Your task to perform on an android device: Go to internet settings Image 0: 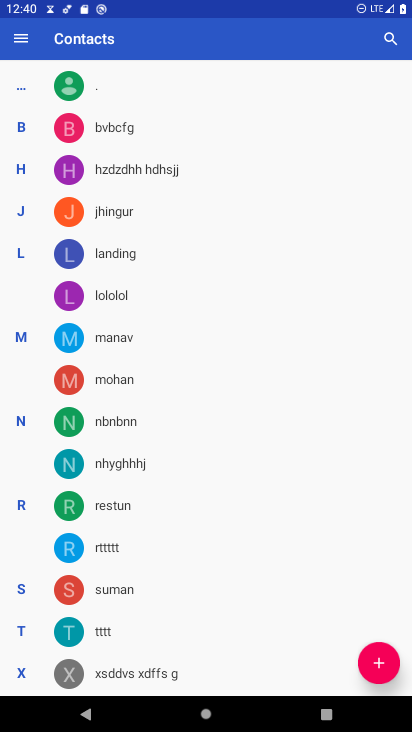
Step 0: press home button
Your task to perform on an android device: Go to internet settings Image 1: 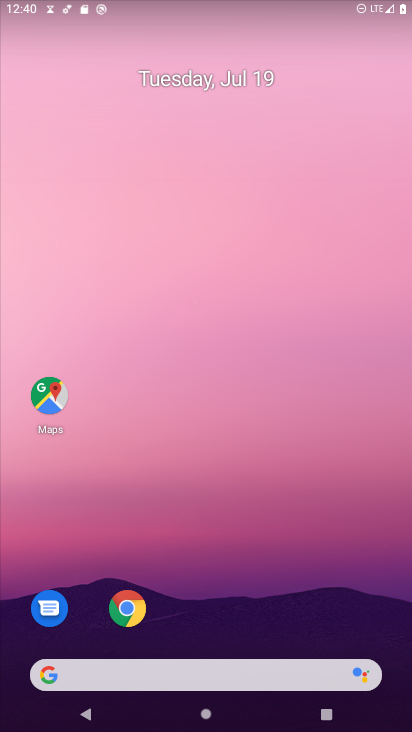
Step 1: drag from (262, 556) to (288, 204)
Your task to perform on an android device: Go to internet settings Image 2: 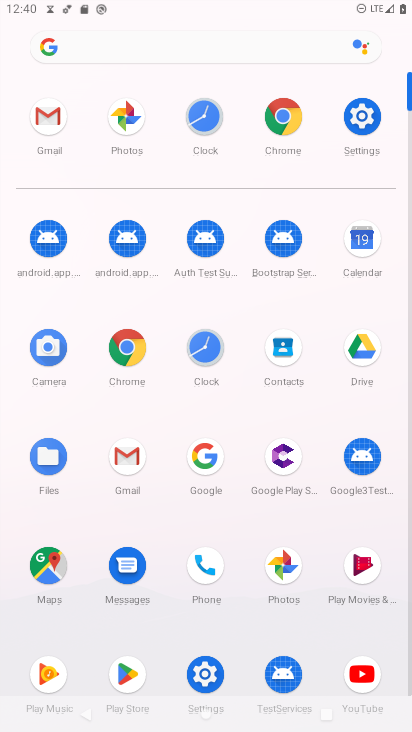
Step 2: click (360, 108)
Your task to perform on an android device: Go to internet settings Image 3: 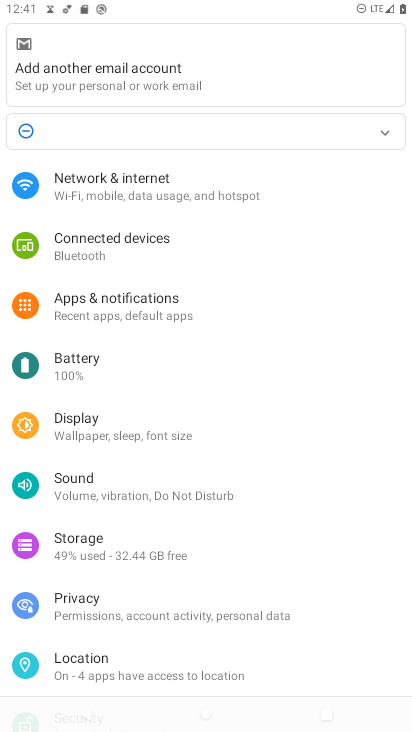
Step 3: click (141, 191)
Your task to perform on an android device: Go to internet settings Image 4: 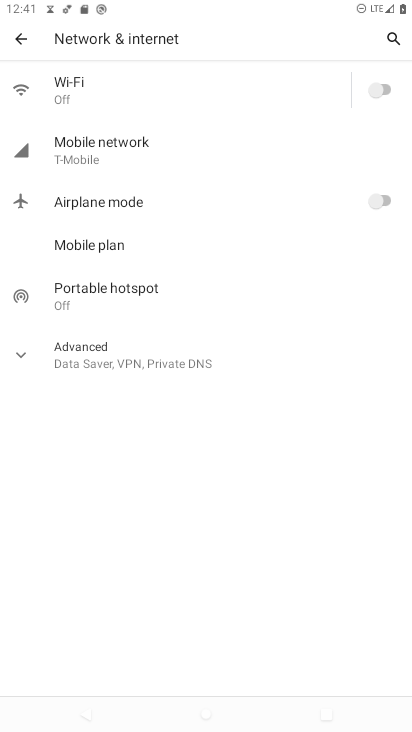
Step 4: click (124, 144)
Your task to perform on an android device: Go to internet settings Image 5: 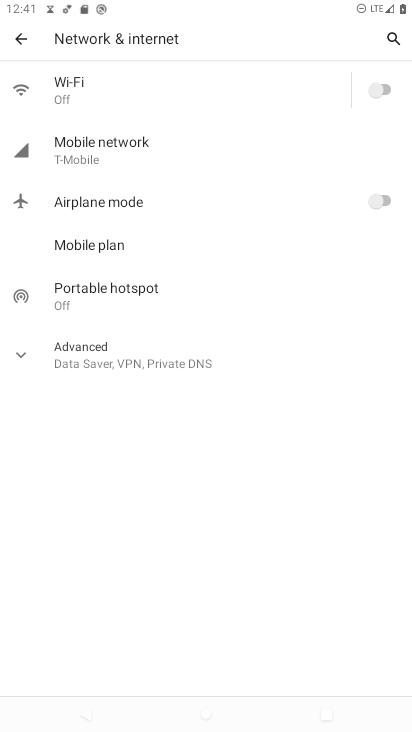
Step 5: task complete